Your task to perform on an android device: Open settings Image 0: 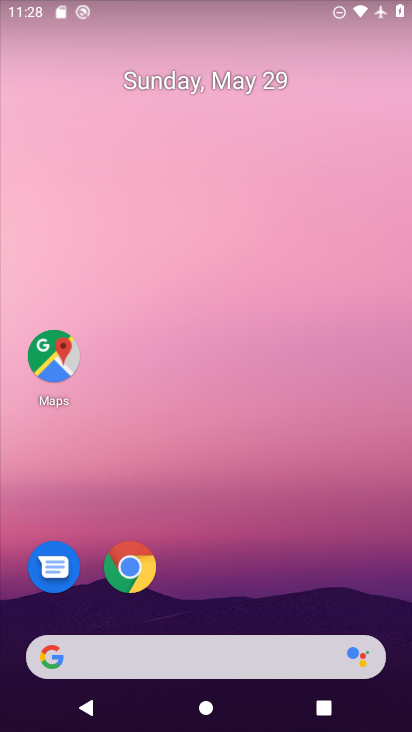
Step 0: drag from (393, 627) to (337, 130)
Your task to perform on an android device: Open settings Image 1: 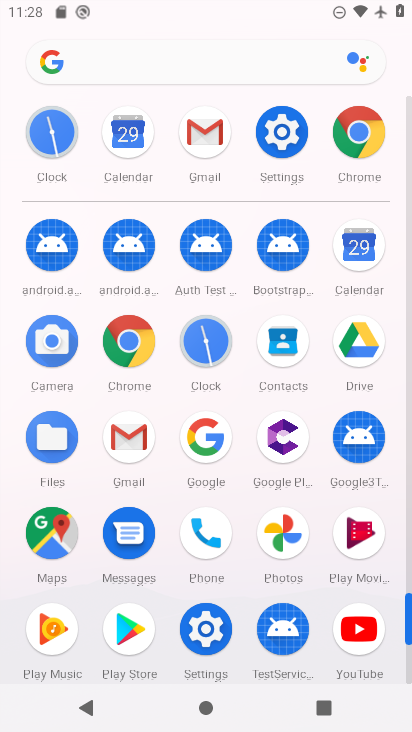
Step 1: click (407, 670)
Your task to perform on an android device: Open settings Image 2: 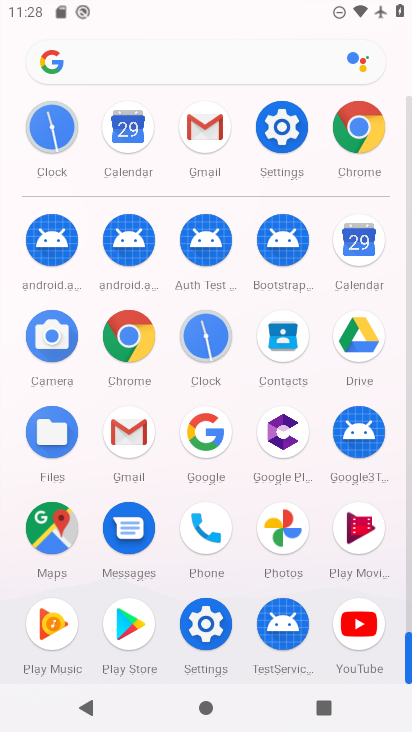
Step 2: click (207, 624)
Your task to perform on an android device: Open settings Image 3: 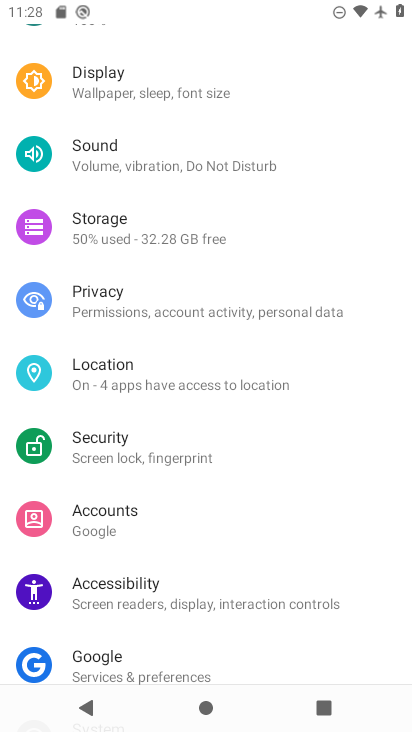
Step 3: task complete